Your task to perform on an android device: open a new tab in the chrome app Image 0: 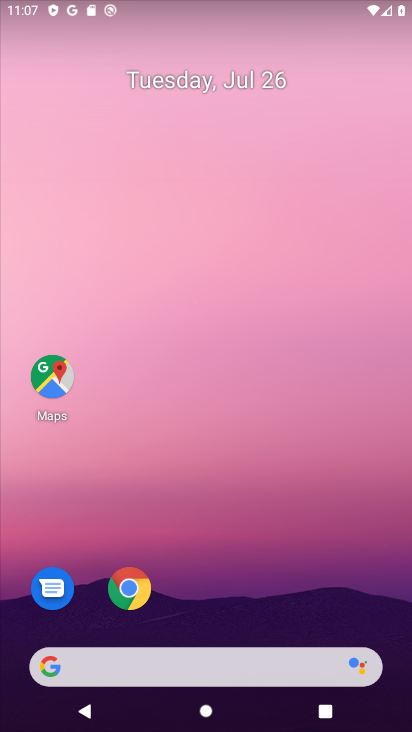
Step 0: press home button
Your task to perform on an android device: open a new tab in the chrome app Image 1: 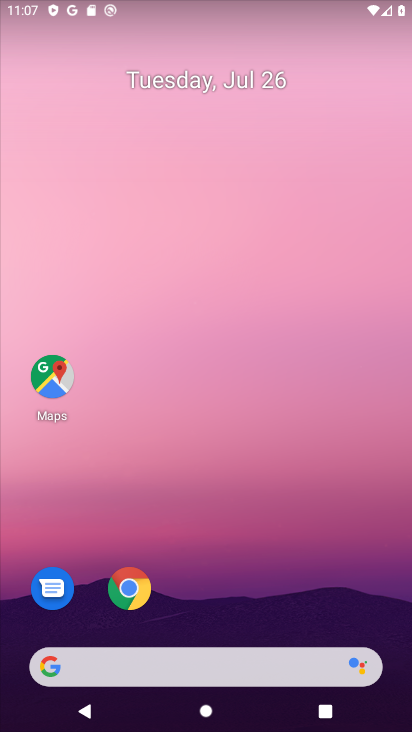
Step 1: drag from (239, 625) to (240, 16)
Your task to perform on an android device: open a new tab in the chrome app Image 2: 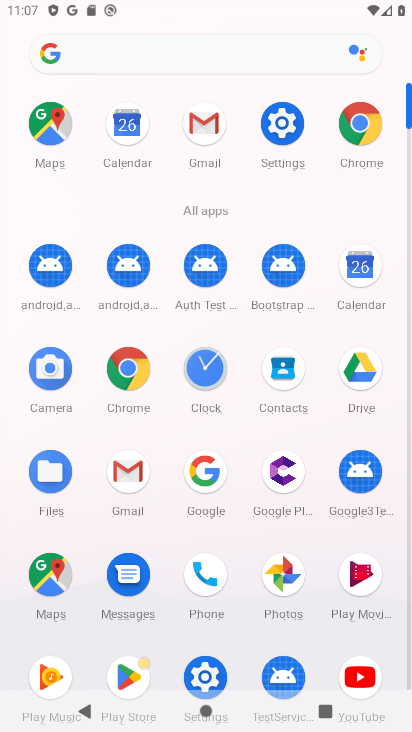
Step 2: click (126, 361)
Your task to perform on an android device: open a new tab in the chrome app Image 3: 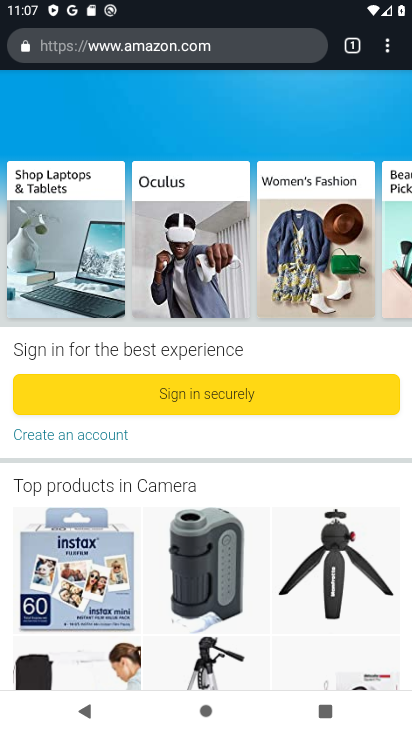
Step 3: click (350, 44)
Your task to perform on an android device: open a new tab in the chrome app Image 4: 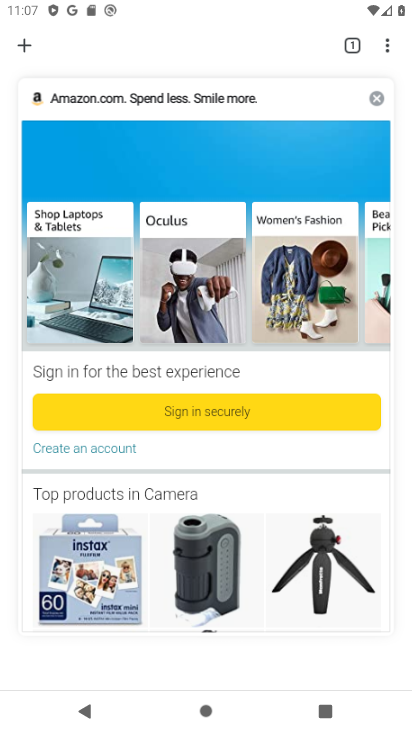
Step 4: click (19, 40)
Your task to perform on an android device: open a new tab in the chrome app Image 5: 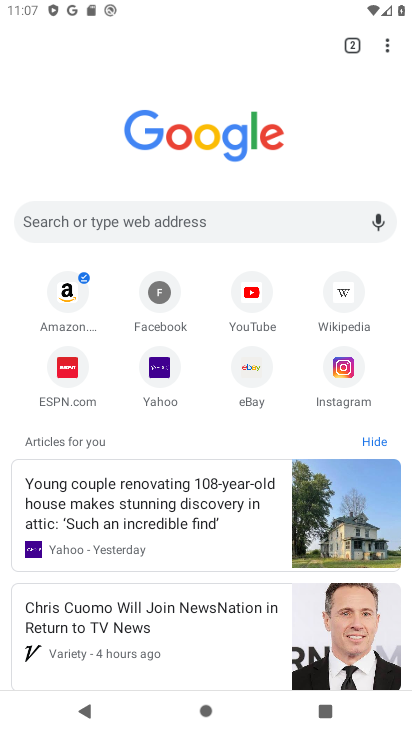
Step 5: task complete